Your task to perform on an android device: Go to Android settings Image 0: 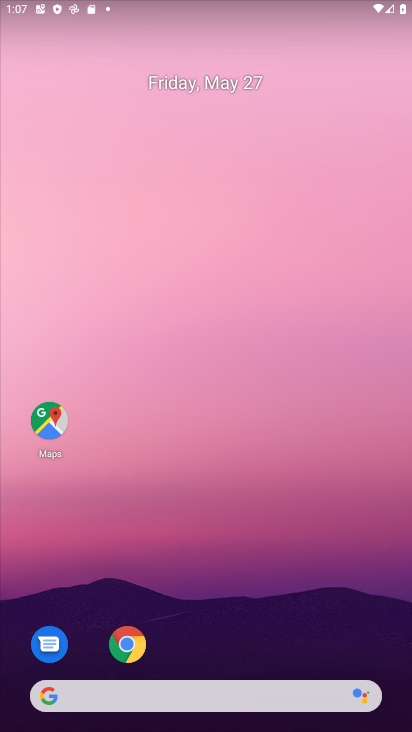
Step 0: drag from (337, 632) to (260, 1)
Your task to perform on an android device: Go to Android settings Image 1: 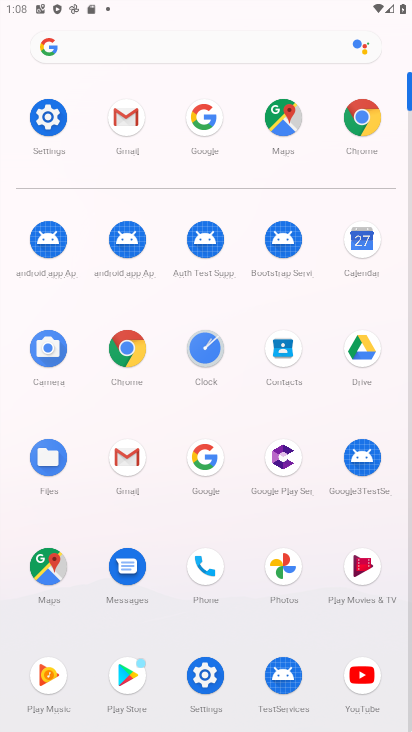
Step 1: click (221, 673)
Your task to perform on an android device: Go to Android settings Image 2: 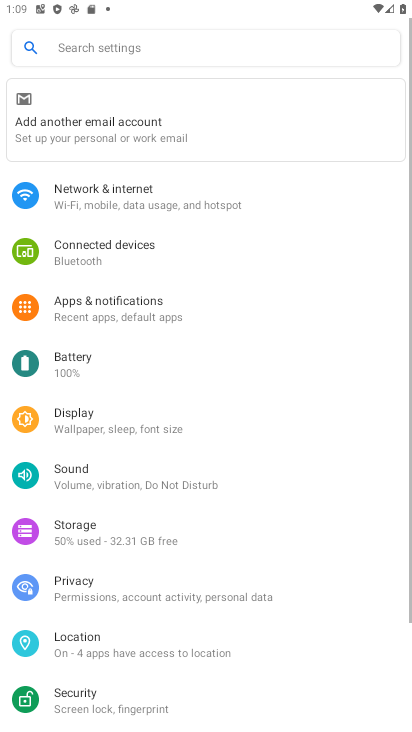
Step 2: drag from (212, 530) to (137, 45)
Your task to perform on an android device: Go to Android settings Image 3: 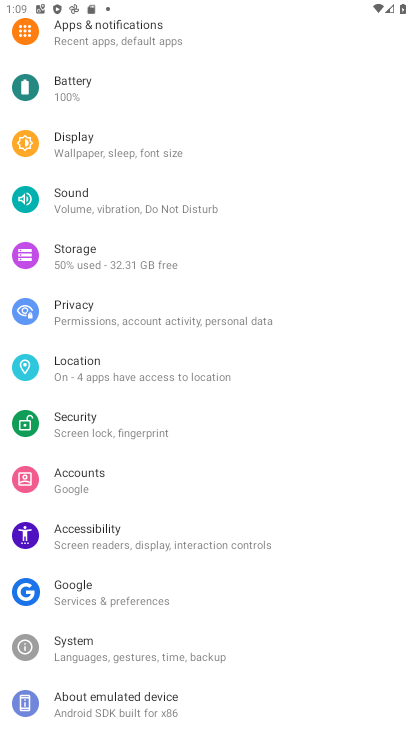
Step 3: click (118, 713)
Your task to perform on an android device: Go to Android settings Image 4: 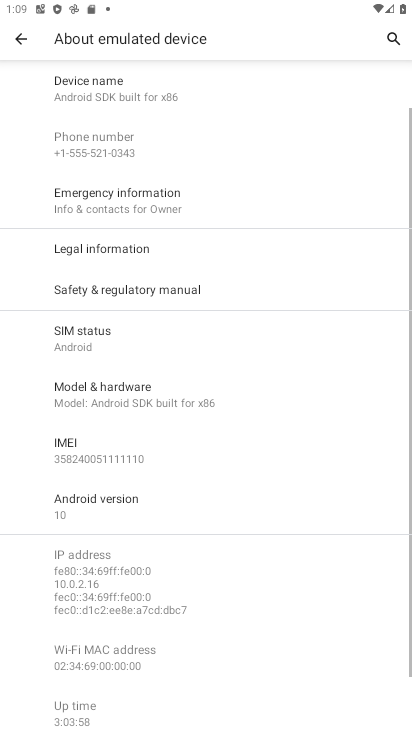
Step 4: click (152, 498)
Your task to perform on an android device: Go to Android settings Image 5: 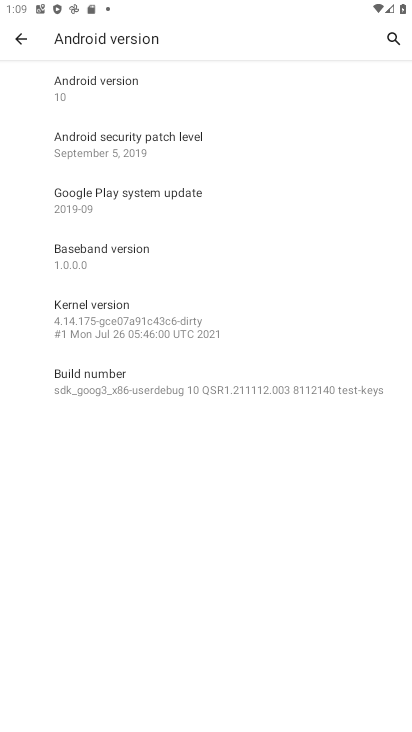
Step 5: task complete